Your task to perform on an android device: change your default location settings in chrome Image 0: 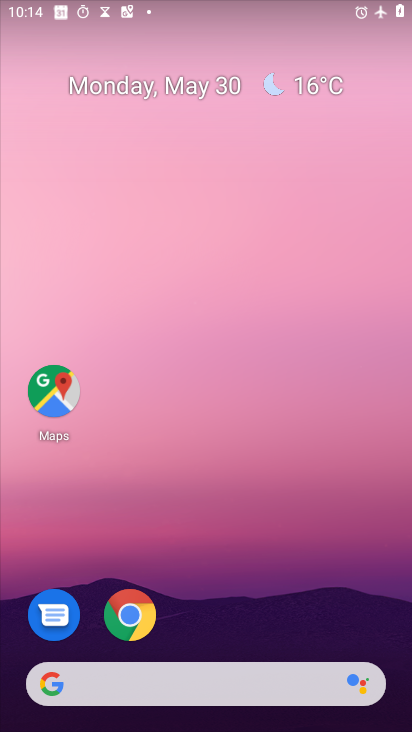
Step 0: drag from (292, 615) to (268, 78)
Your task to perform on an android device: change your default location settings in chrome Image 1: 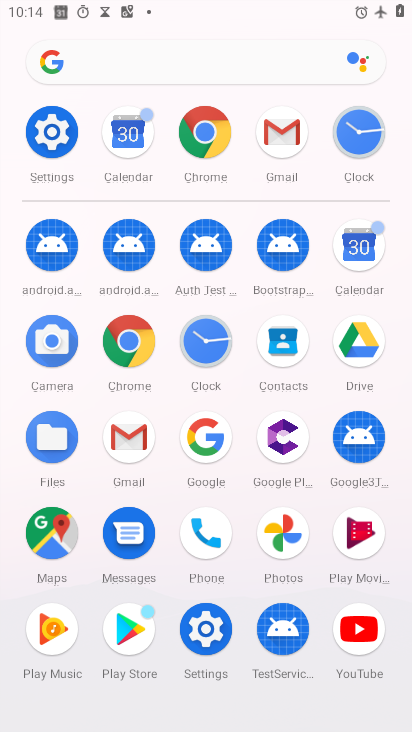
Step 1: click (40, 146)
Your task to perform on an android device: change your default location settings in chrome Image 2: 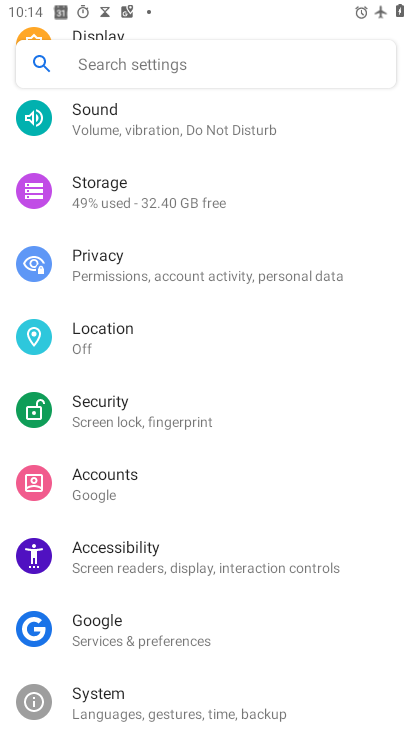
Step 2: click (163, 341)
Your task to perform on an android device: change your default location settings in chrome Image 3: 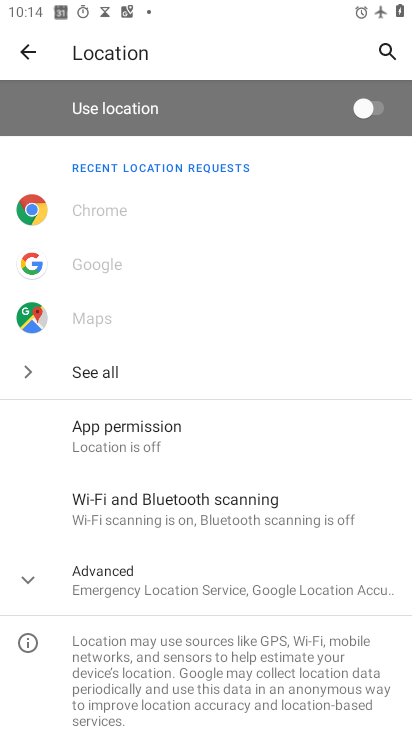
Step 3: click (357, 104)
Your task to perform on an android device: change your default location settings in chrome Image 4: 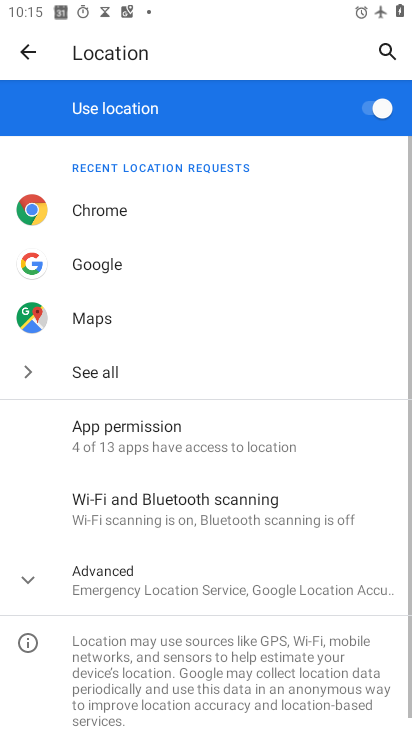
Step 4: task complete